Your task to perform on an android device: turn off notifications in google photos Image 0: 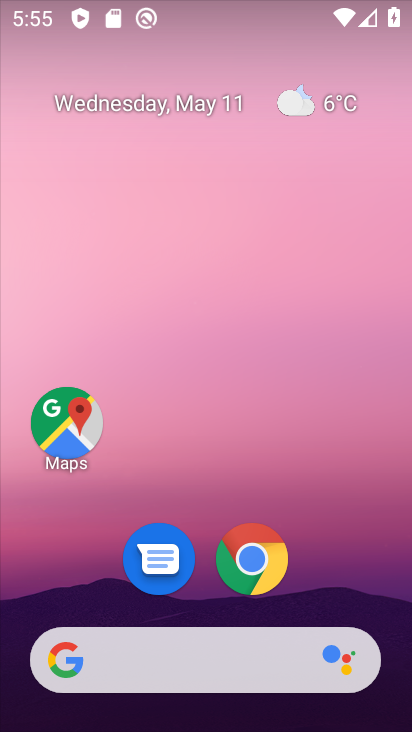
Step 0: drag from (369, 570) to (372, 39)
Your task to perform on an android device: turn off notifications in google photos Image 1: 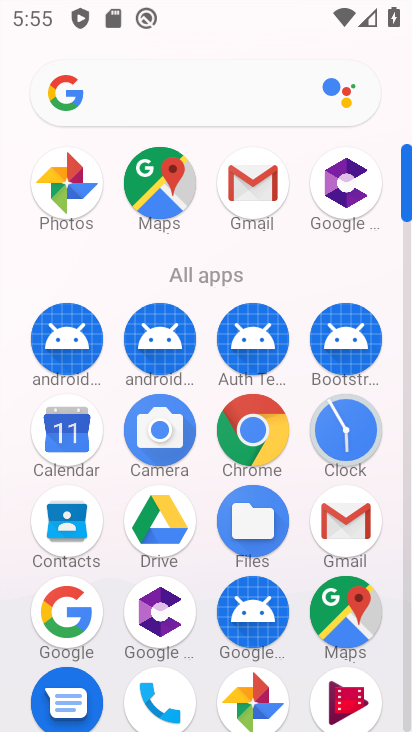
Step 1: click (250, 703)
Your task to perform on an android device: turn off notifications in google photos Image 2: 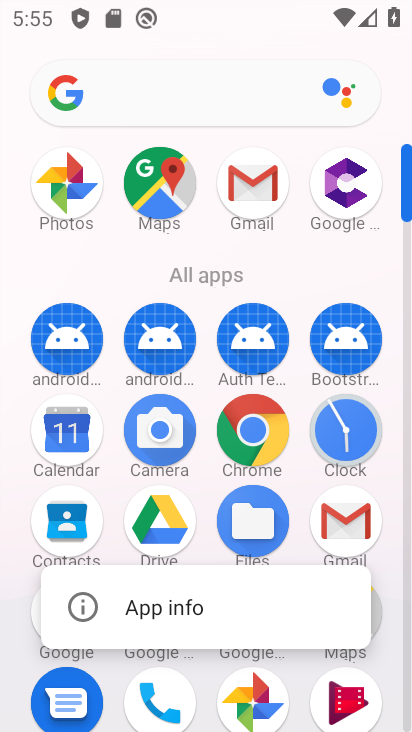
Step 2: click (290, 586)
Your task to perform on an android device: turn off notifications in google photos Image 3: 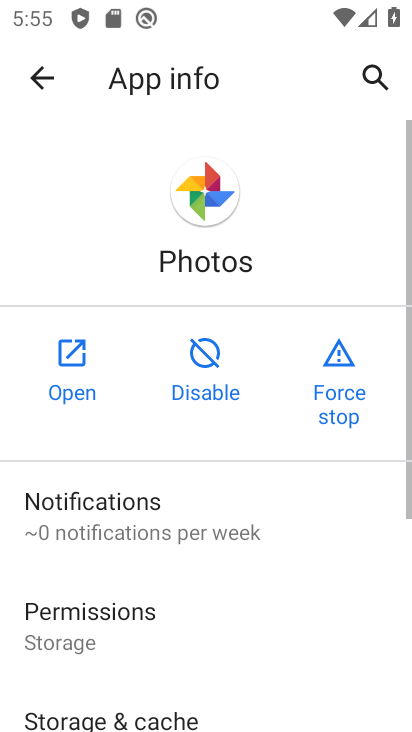
Step 3: click (229, 505)
Your task to perform on an android device: turn off notifications in google photos Image 4: 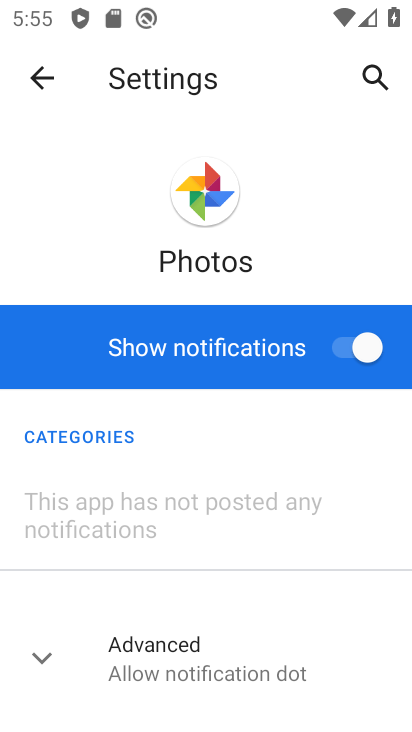
Step 4: click (379, 349)
Your task to perform on an android device: turn off notifications in google photos Image 5: 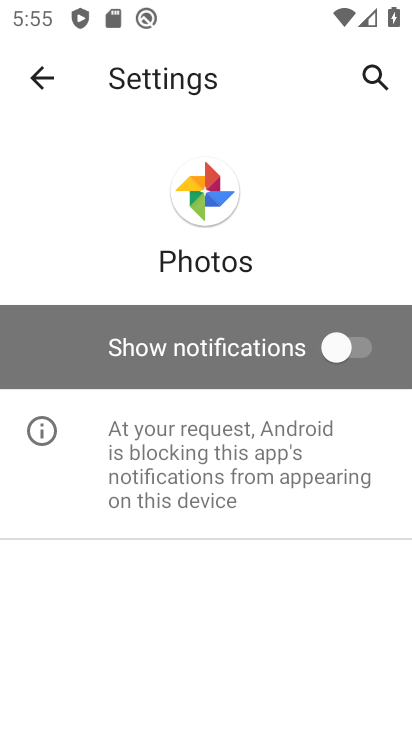
Step 5: task complete